Your task to perform on an android device: Open my contact list Image 0: 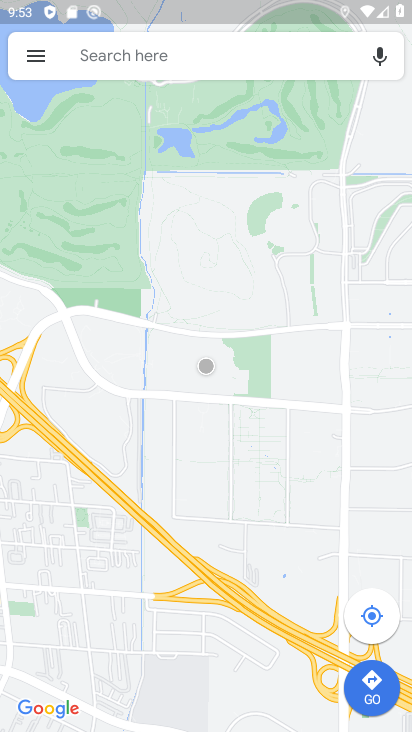
Step 0: press home button
Your task to perform on an android device: Open my contact list Image 1: 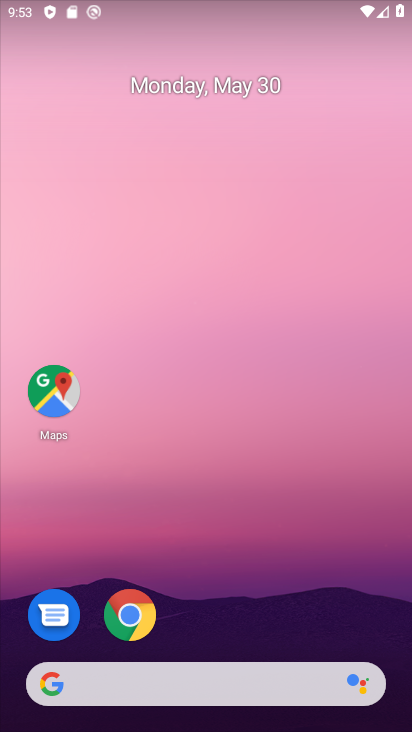
Step 1: drag from (194, 724) to (192, 449)
Your task to perform on an android device: Open my contact list Image 2: 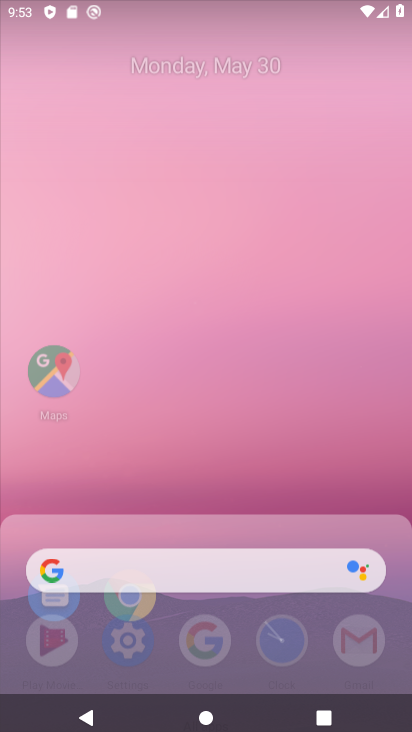
Step 2: click (189, 43)
Your task to perform on an android device: Open my contact list Image 3: 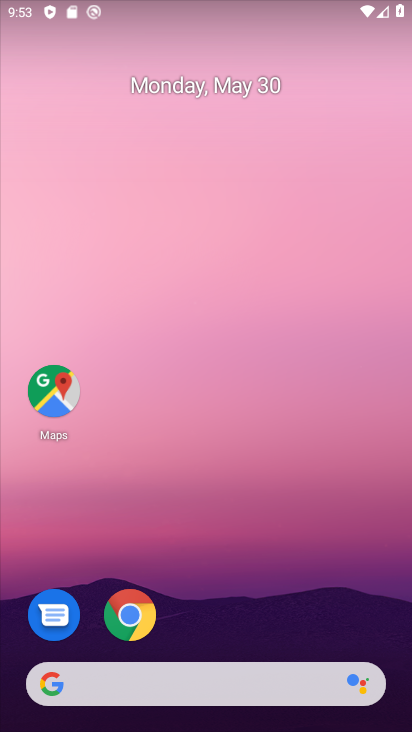
Step 3: drag from (197, 717) to (205, 19)
Your task to perform on an android device: Open my contact list Image 4: 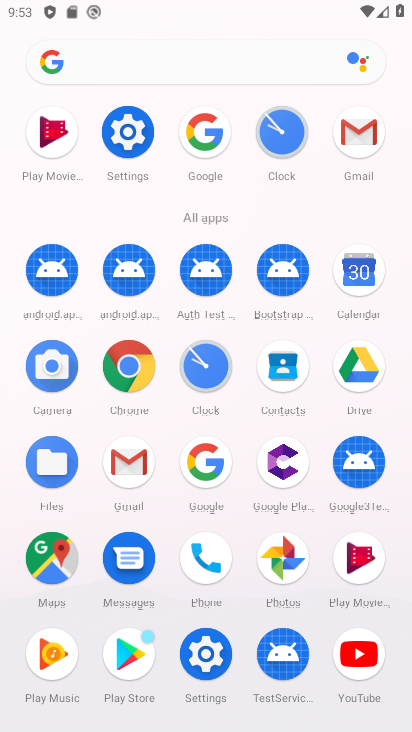
Step 4: click (286, 371)
Your task to perform on an android device: Open my contact list Image 5: 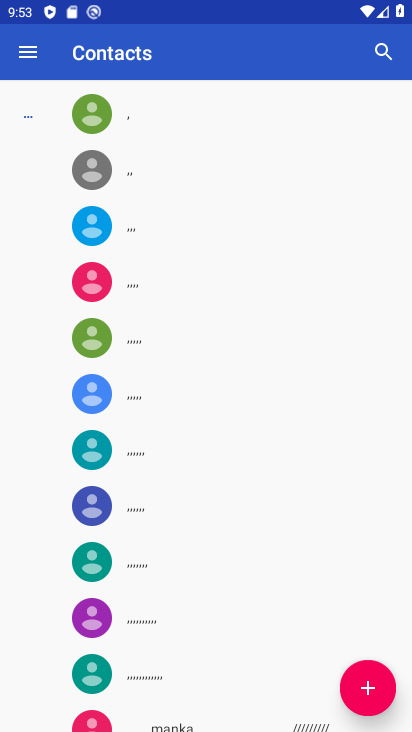
Step 5: task complete